Your task to perform on an android device: manage bookmarks in the chrome app Image 0: 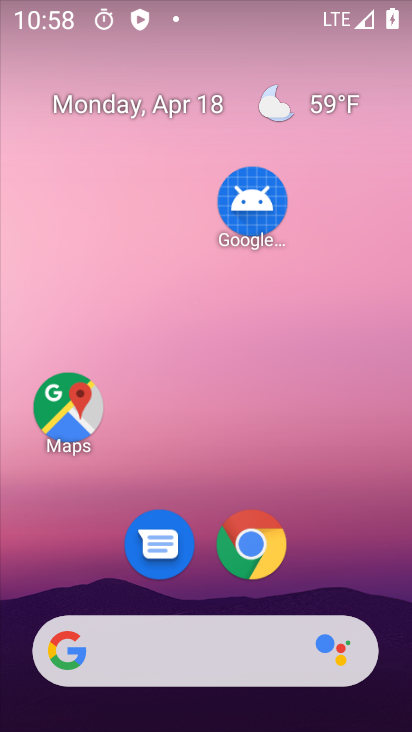
Step 0: drag from (305, 435) to (317, 240)
Your task to perform on an android device: manage bookmarks in the chrome app Image 1: 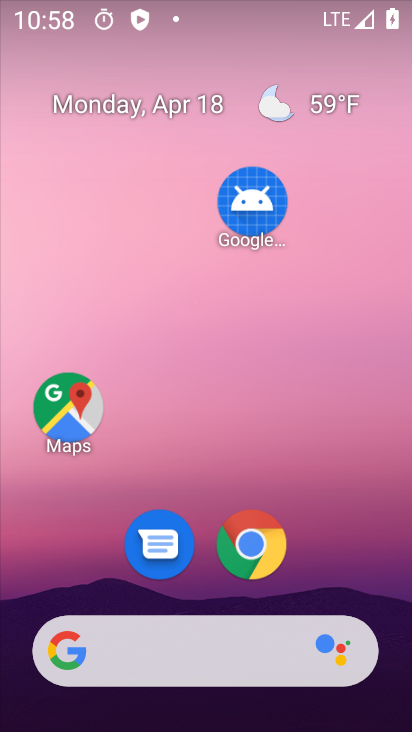
Step 1: drag from (228, 677) to (271, 192)
Your task to perform on an android device: manage bookmarks in the chrome app Image 2: 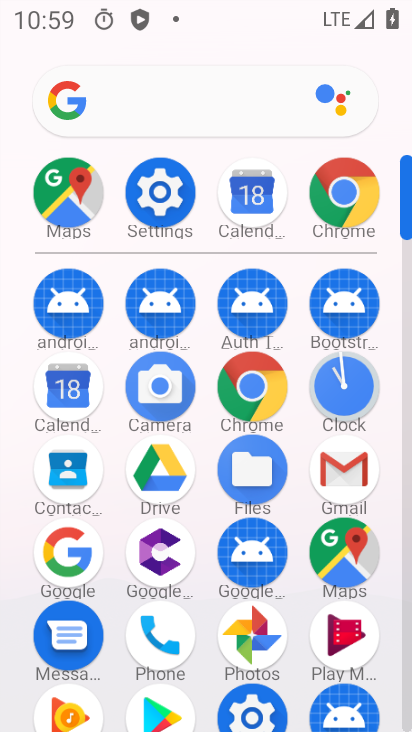
Step 2: click (263, 377)
Your task to perform on an android device: manage bookmarks in the chrome app Image 3: 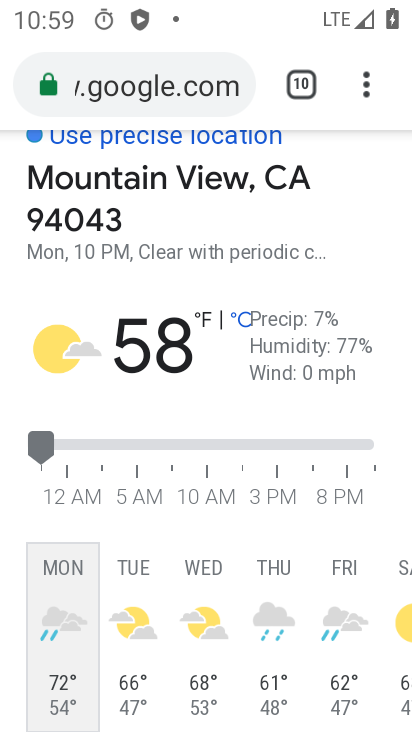
Step 3: click (362, 94)
Your task to perform on an android device: manage bookmarks in the chrome app Image 4: 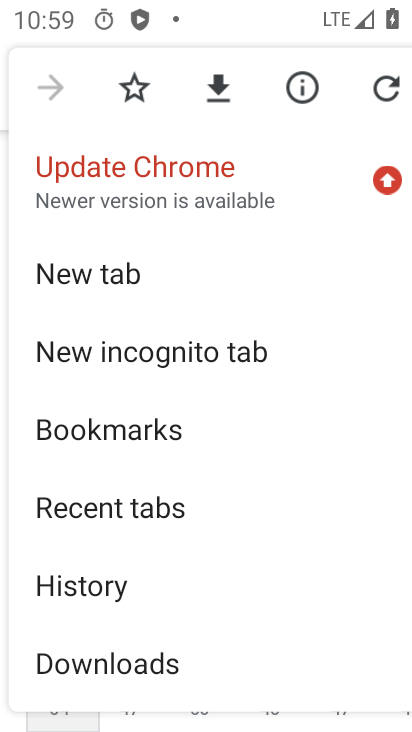
Step 4: click (173, 416)
Your task to perform on an android device: manage bookmarks in the chrome app Image 5: 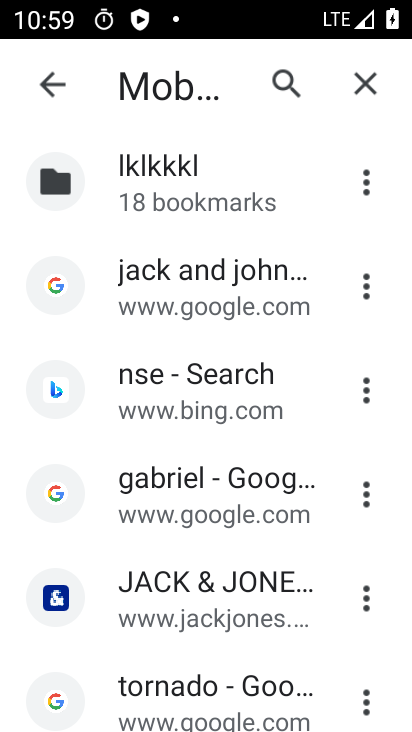
Step 5: click (65, 285)
Your task to perform on an android device: manage bookmarks in the chrome app Image 6: 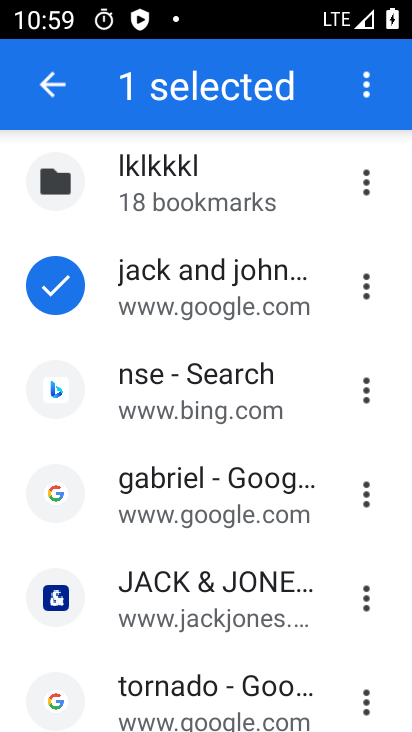
Step 6: click (379, 73)
Your task to perform on an android device: manage bookmarks in the chrome app Image 7: 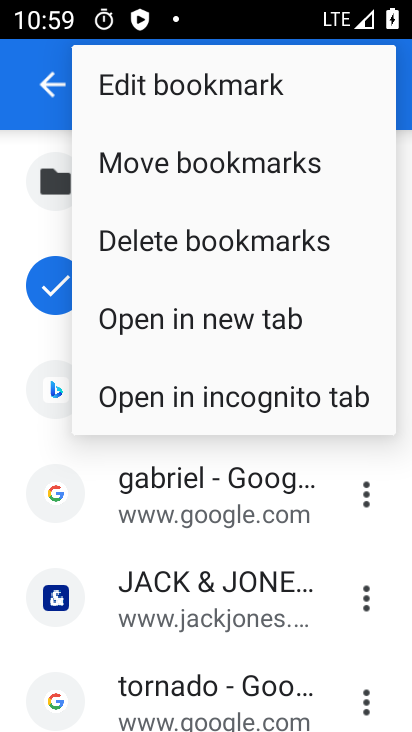
Step 7: click (238, 77)
Your task to perform on an android device: manage bookmarks in the chrome app Image 8: 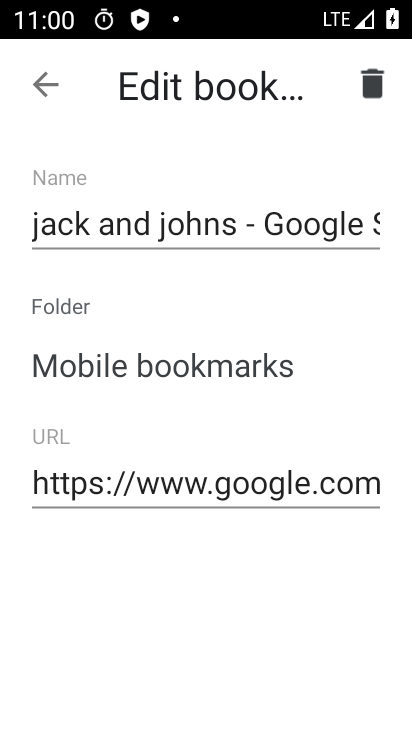
Step 8: click (366, 470)
Your task to perform on an android device: manage bookmarks in the chrome app Image 9: 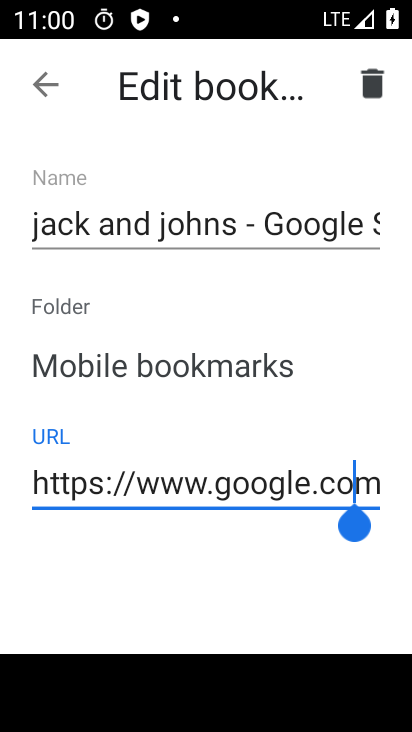
Step 9: click (195, 480)
Your task to perform on an android device: manage bookmarks in the chrome app Image 10: 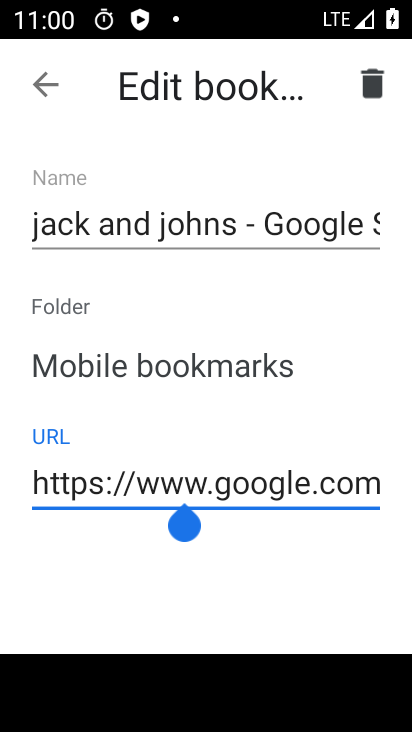
Step 10: click (54, 84)
Your task to perform on an android device: manage bookmarks in the chrome app Image 11: 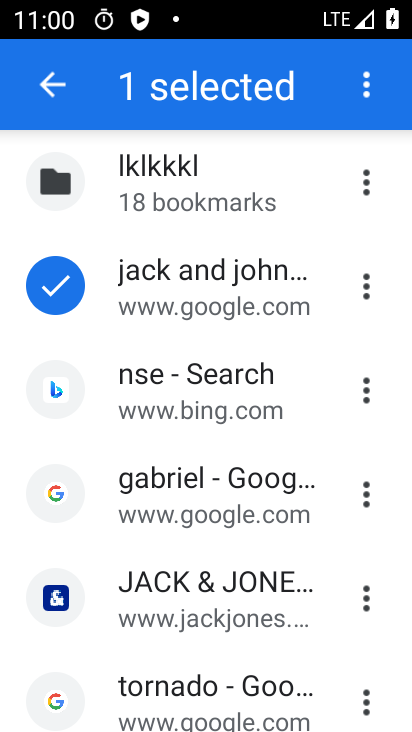
Step 11: click (140, 276)
Your task to perform on an android device: manage bookmarks in the chrome app Image 12: 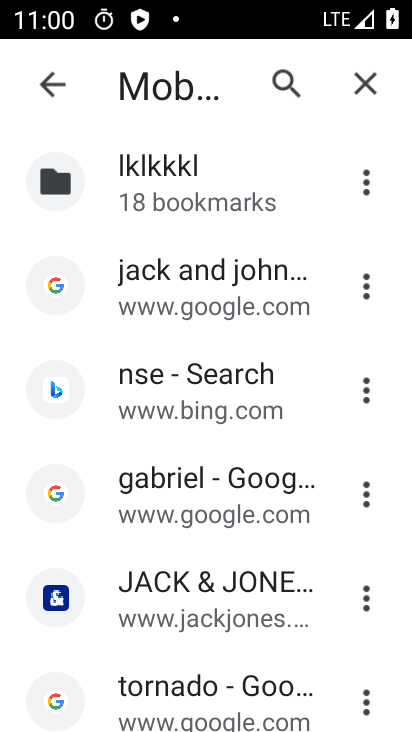
Step 12: click (41, 273)
Your task to perform on an android device: manage bookmarks in the chrome app Image 13: 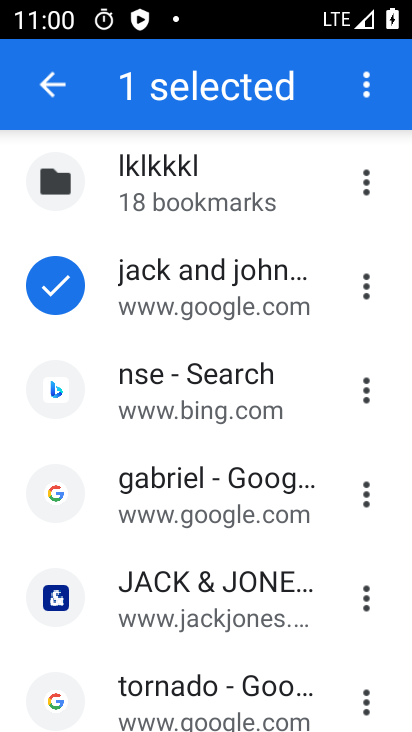
Step 13: click (200, 105)
Your task to perform on an android device: manage bookmarks in the chrome app Image 14: 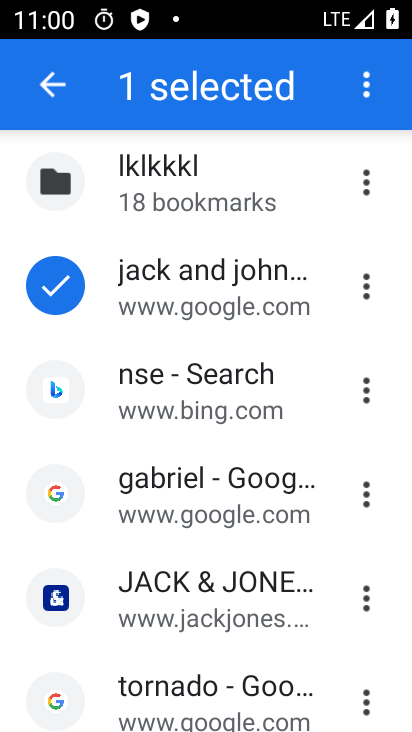
Step 14: click (204, 100)
Your task to perform on an android device: manage bookmarks in the chrome app Image 15: 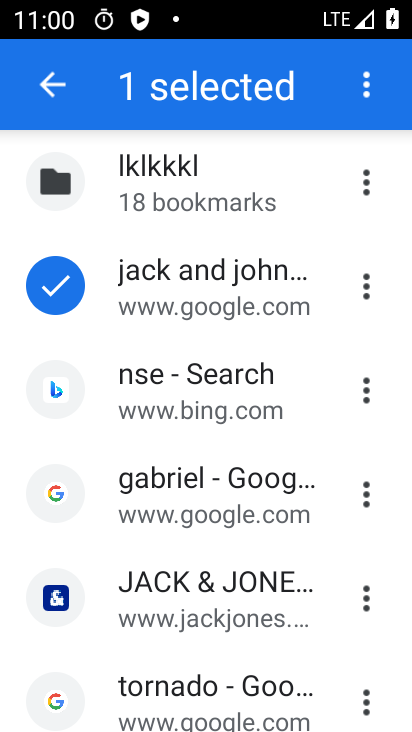
Step 15: click (225, 159)
Your task to perform on an android device: manage bookmarks in the chrome app Image 16: 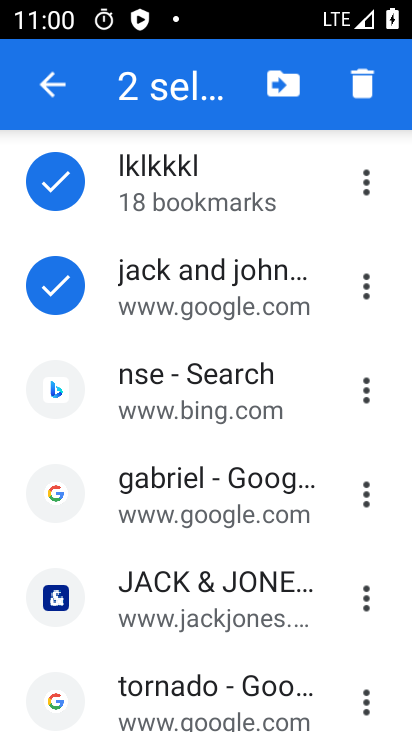
Step 16: click (287, 83)
Your task to perform on an android device: manage bookmarks in the chrome app Image 17: 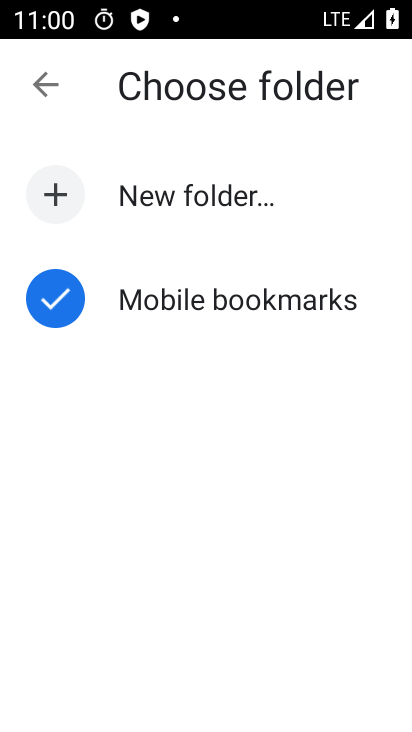
Step 17: click (154, 321)
Your task to perform on an android device: manage bookmarks in the chrome app Image 18: 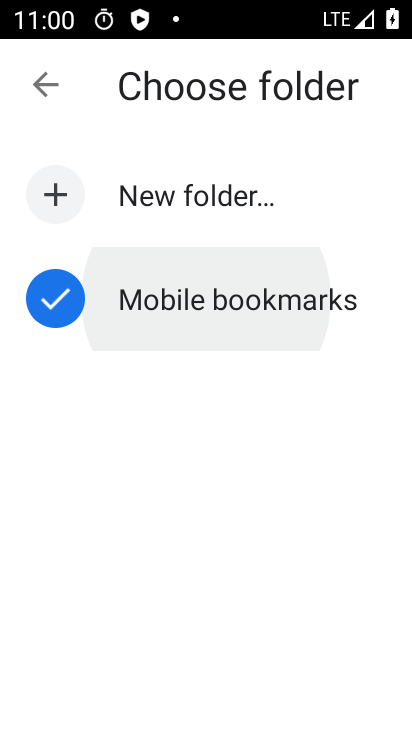
Step 18: click (163, 287)
Your task to perform on an android device: manage bookmarks in the chrome app Image 19: 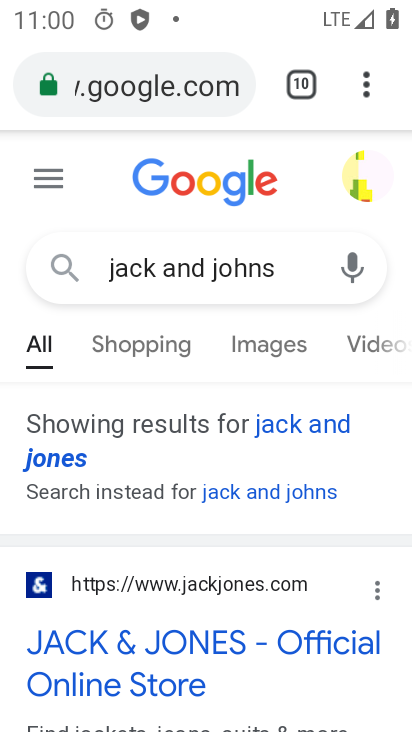
Step 19: task complete